Your task to perform on an android device: toggle airplane mode Image 0: 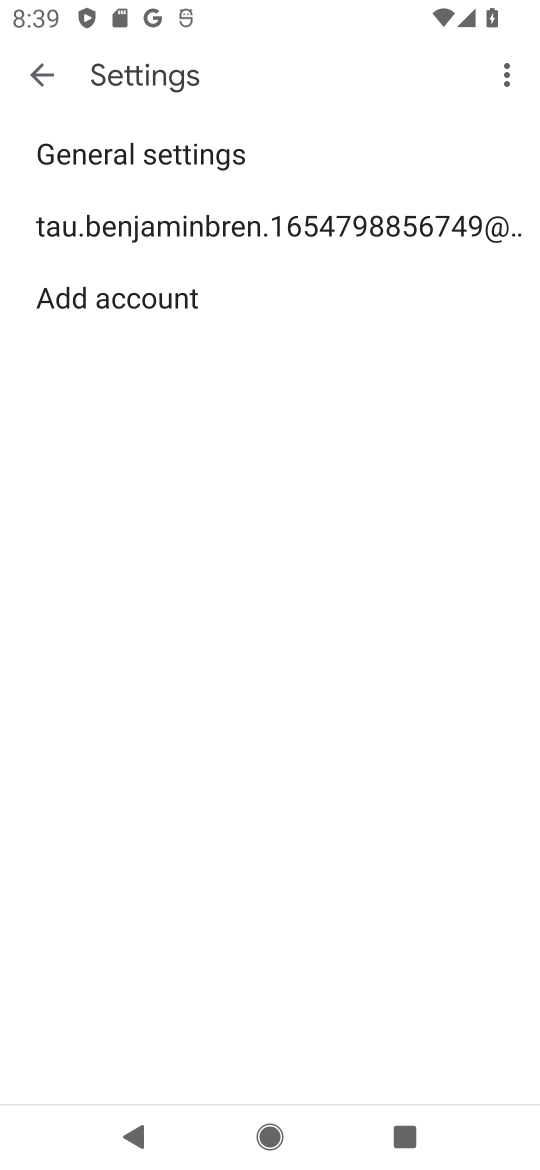
Step 0: press home button
Your task to perform on an android device: toggle airplane mode Image 1: 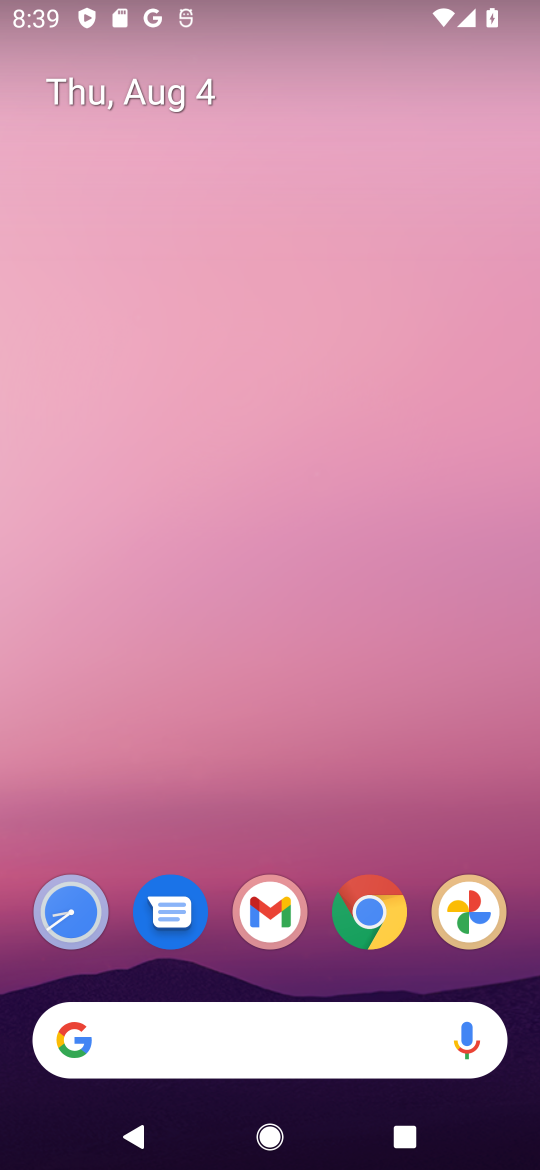
Step 1: drag from (402, 810) to (289, 27)
Your task to perform on an android device: toggle airplane mode Image 2: 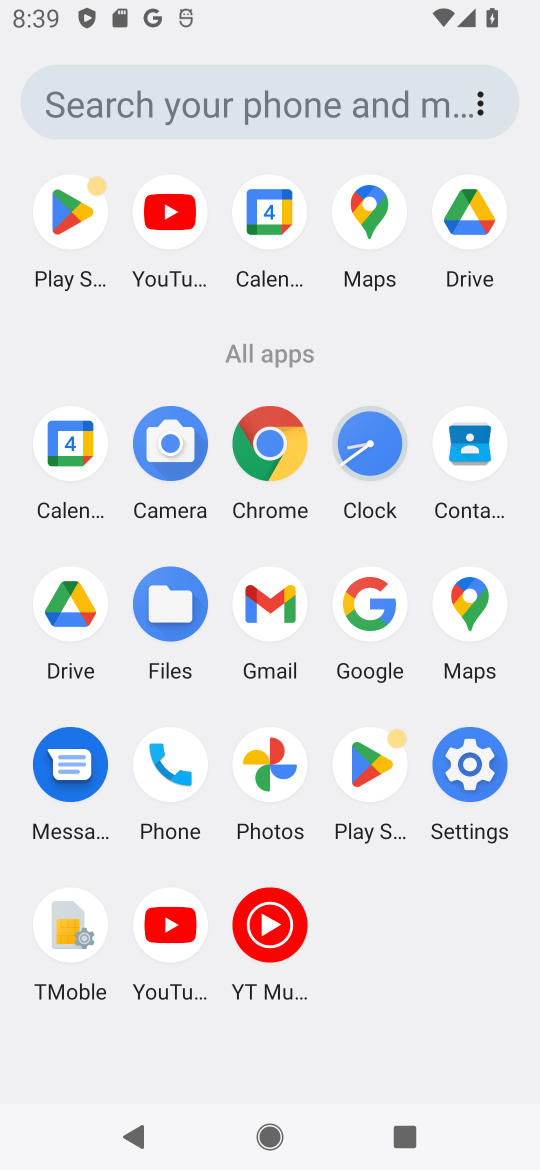
Step 2: click (487, 790)
Your task to perform on an android device: toggle airplane mode Image 3: 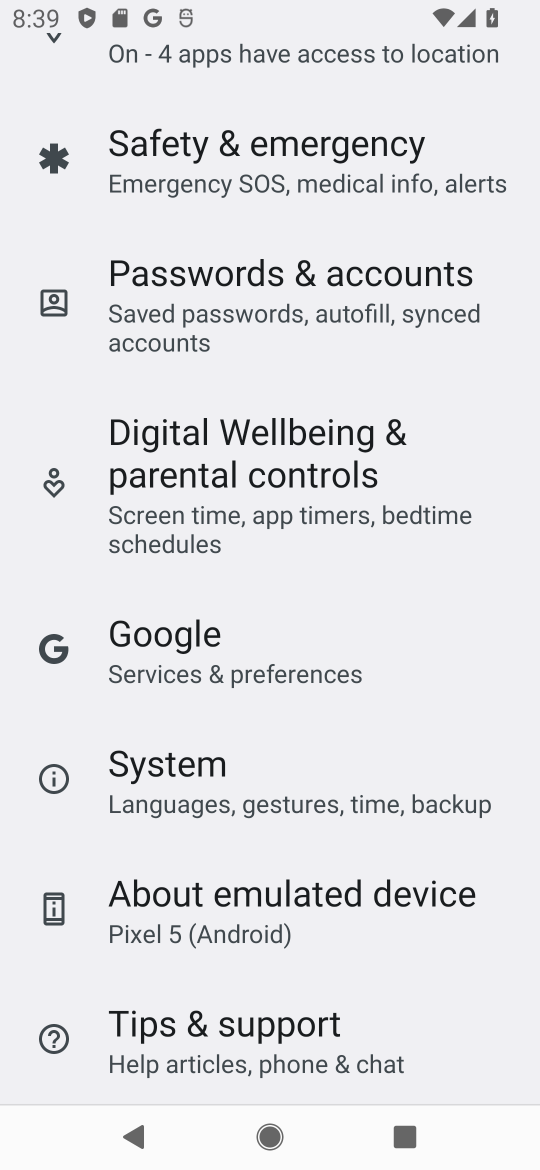
Step 3: drag from (313, 193) to (384, 1161)
Your task to perform on an android device: toggle airplane mode Image 4: 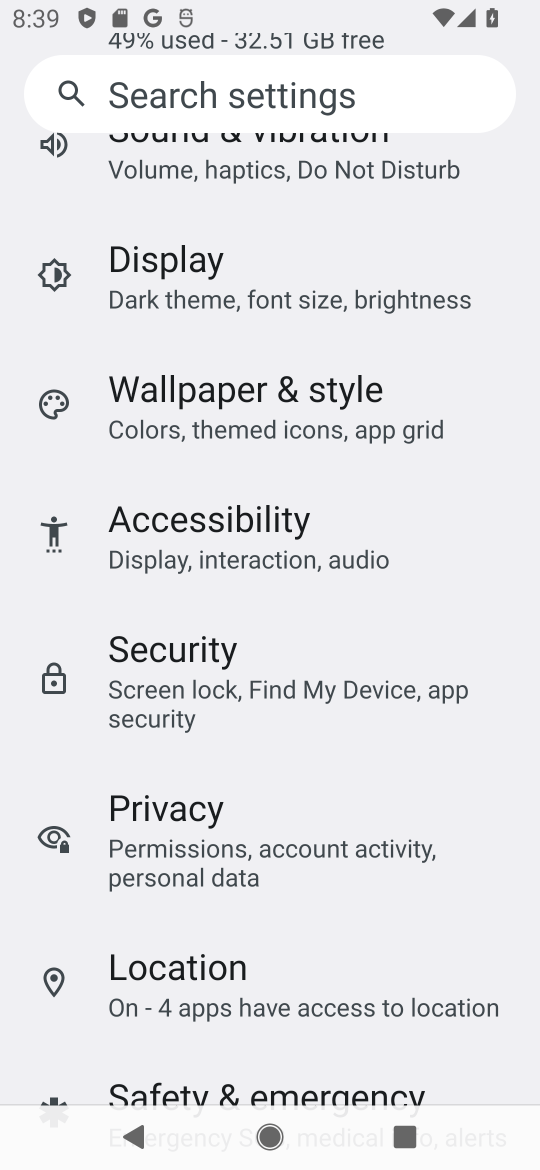
Step 4: drag from (276, 204) to (314, 1032)
Your task to perform on an android device: toggle airplane mode Image 5: 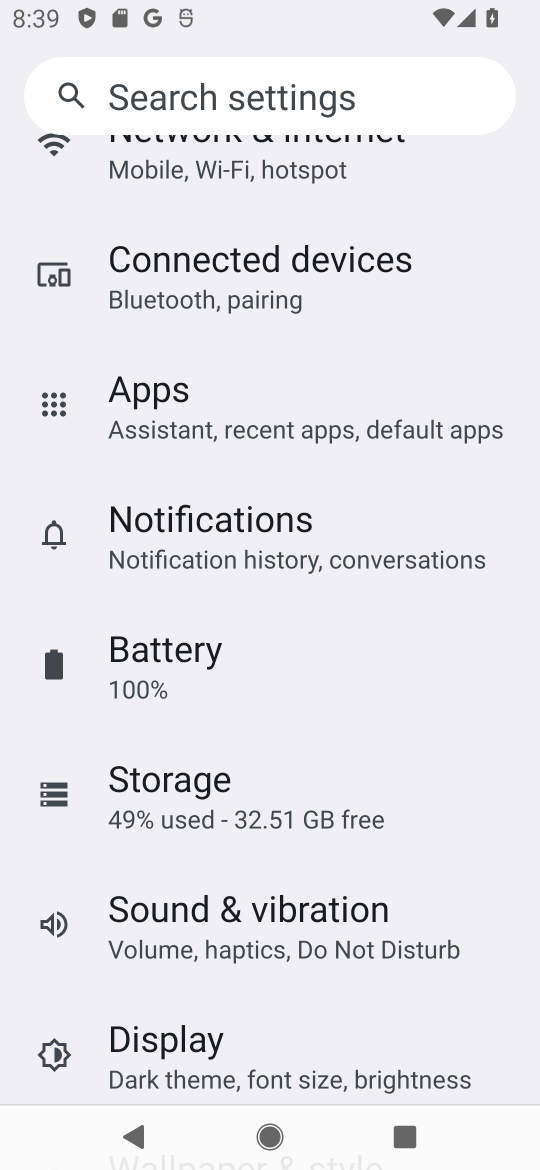
Step 5: click (314, 174)
Your task to perform on an android device: toggle airplane mode Image 6: 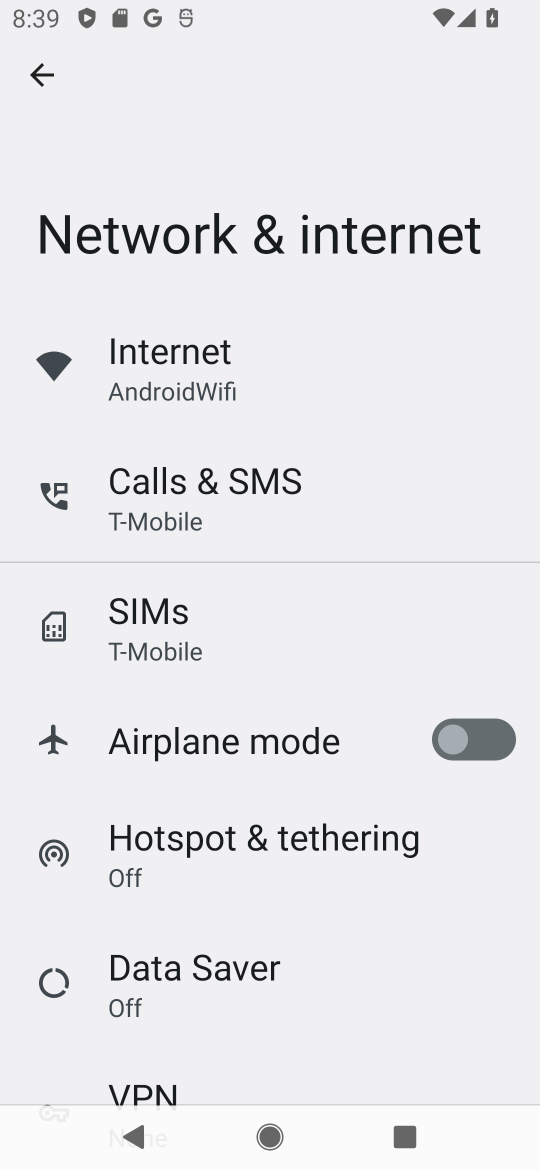
Step 6: click (491, 752)
Your task to perform on an android device: toggle airplane mode Image 7: 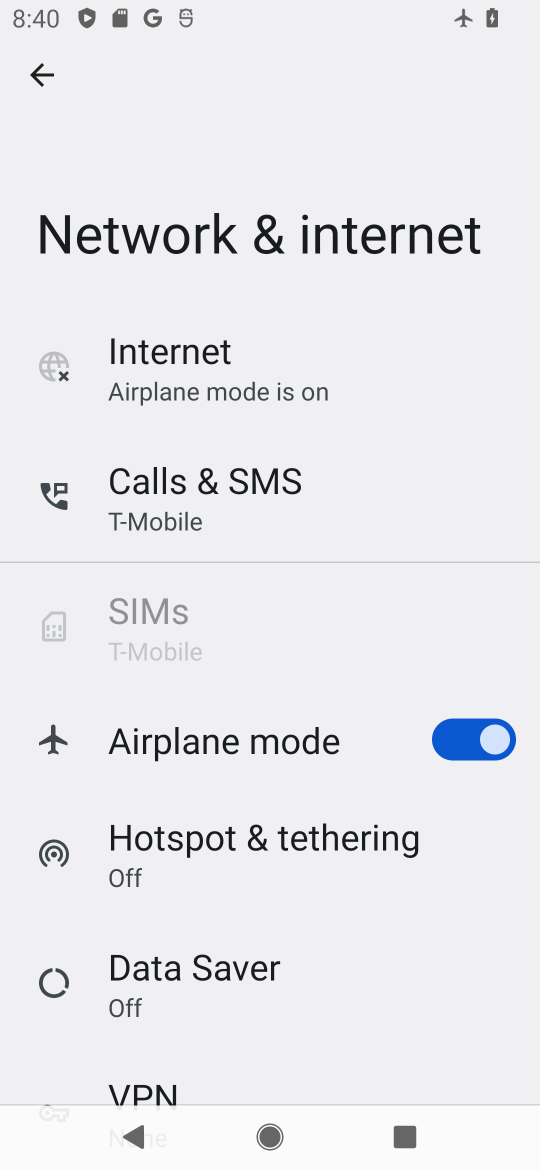
Step 7: task complete